Your task to perform on an android device: turn off translation in the chrome app Image 0: 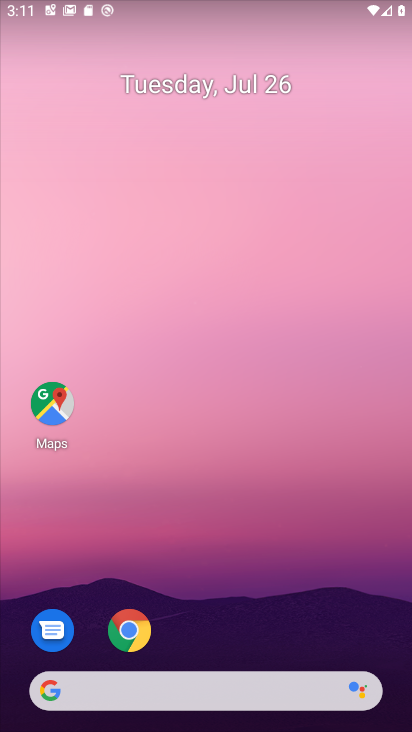
Step 0: click (123, 623)
Your task to perform on an android device: turn off translation in the chrome app Image 1: 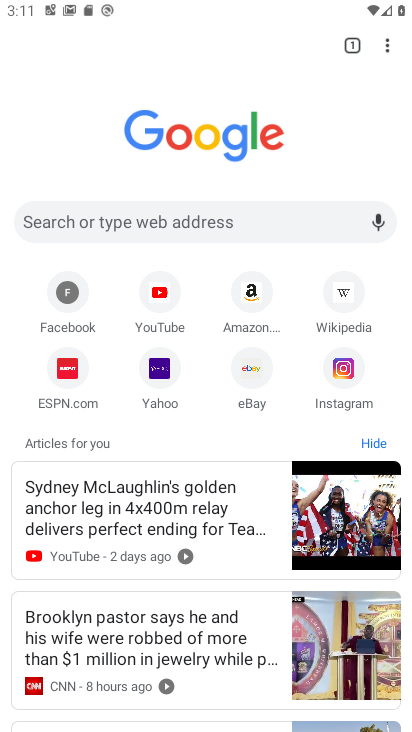
Step 1: click (404, 43)
Your task to perform on an android device: turn off translation in the chrome app Image 2: 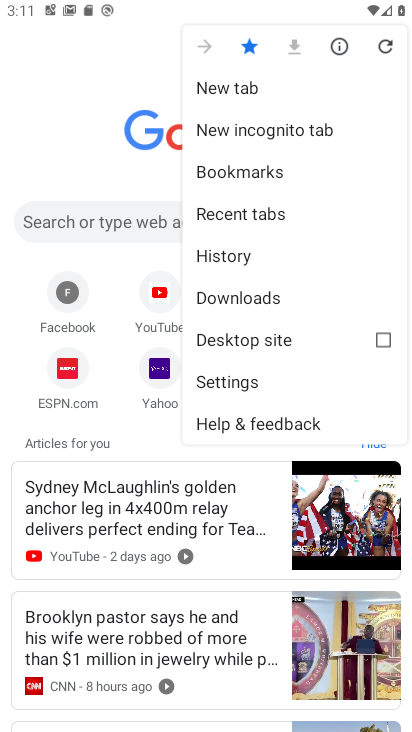
Step 2: click (200, 385)
Your task to perform on an android device: turn off translation in the chrome app Image 3: 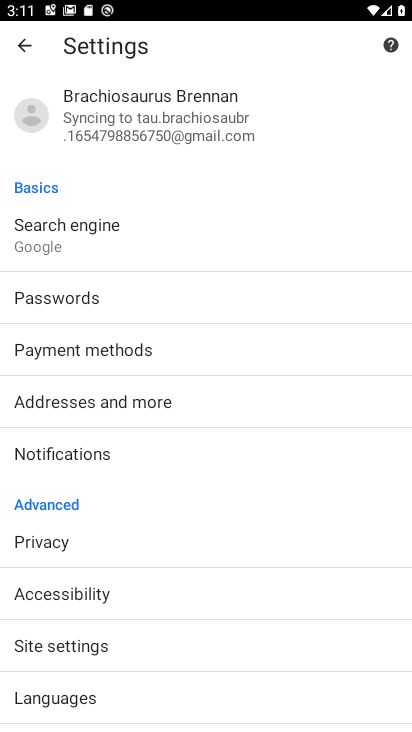
Step 3: click (48, 705)
Your task to perform on an android device: turn off translation in the chrome app Image 4: 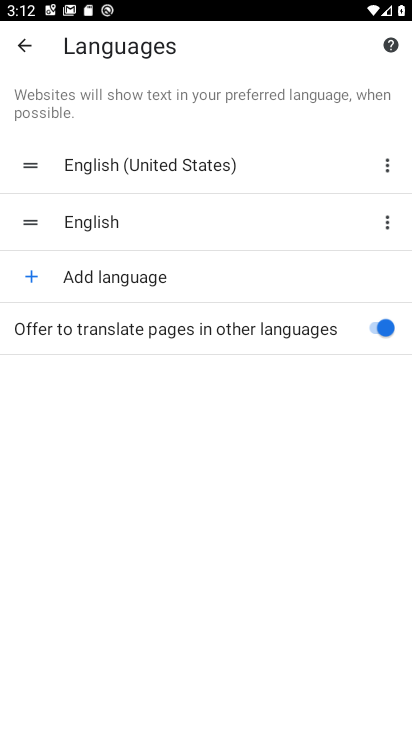
Step 4: click (376, 332)
Your task to perform on an android device: turn off translation in the chrome app Image 5: 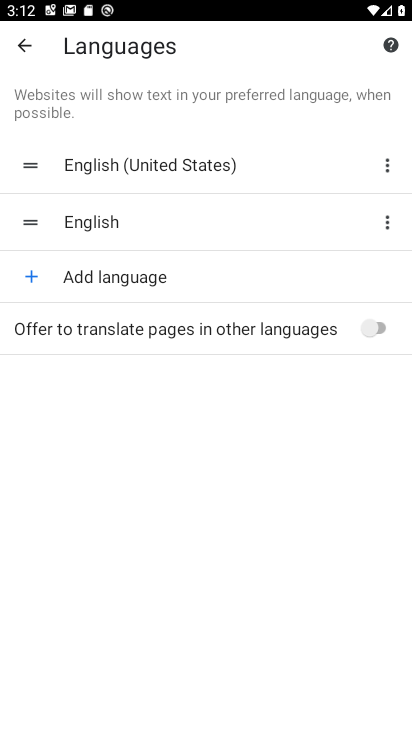
Step 5: task complete